Your task to perform on an android device: Go to display settings Image 0: 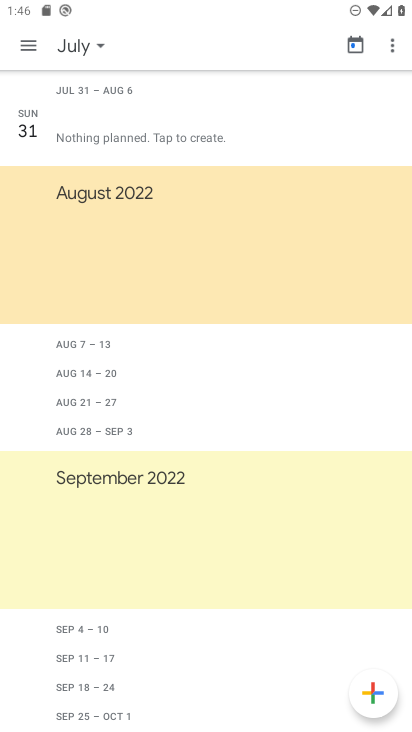
Step 0: press home button
Your task to perform on an android device: Go to display settings Image 1: 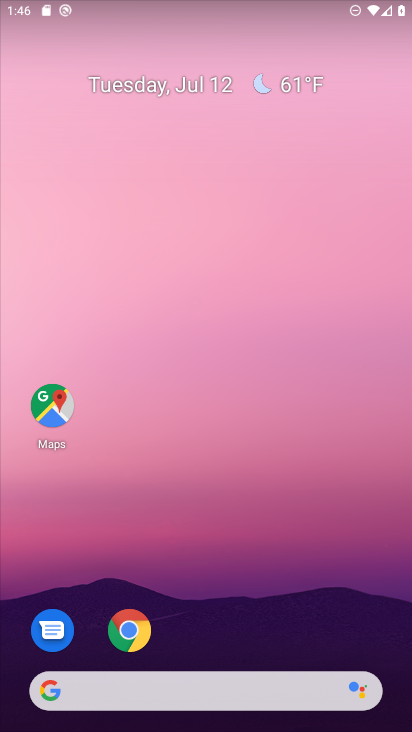
Step 1: drag from (214, 611) to (240, 128)
Your task to perform on an android device: Go to display settings Image 2: 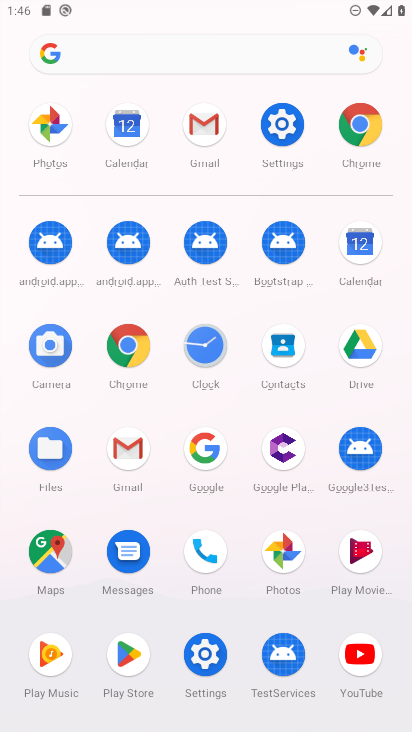
Step 2: click (273, 120)
Your task to perform on an android device: Go to display settings Image 3: 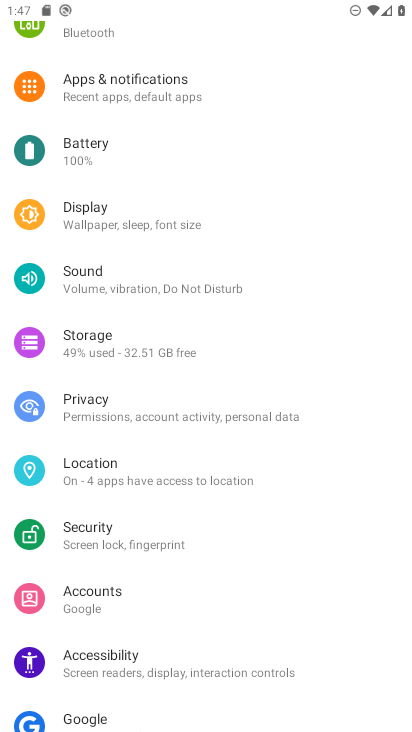
Step 3: click (117, 224)
Your task to perform on an android device: Go to display settings Image 4: 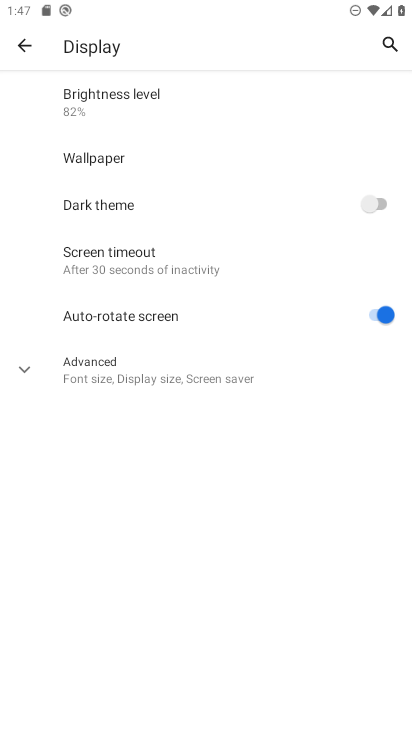
Step 4: task complete